Your task to perform on an android device: What's the weather? Image 0: 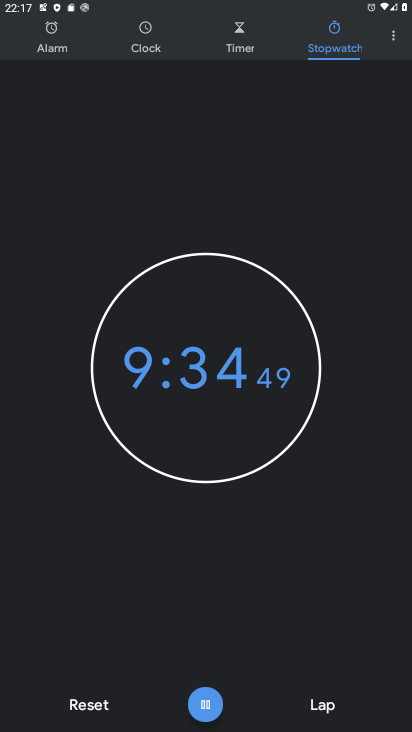
Step 0: click (81, 712)
Your task to perform on an android device: What's the weather? Image 1: 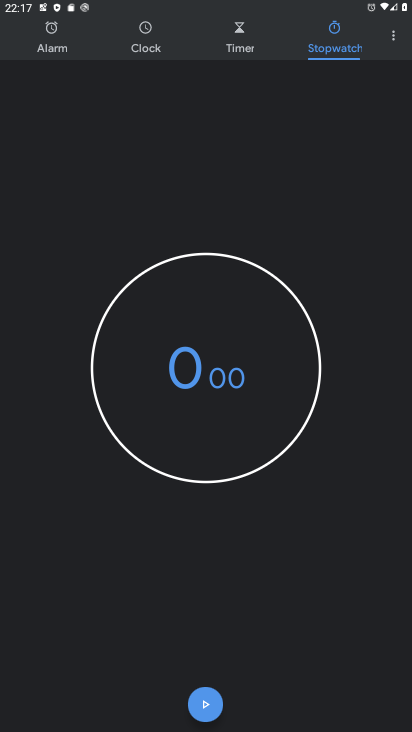
Step 1: press home button
Your task to perform on an android device: What's the weather? Image 2: 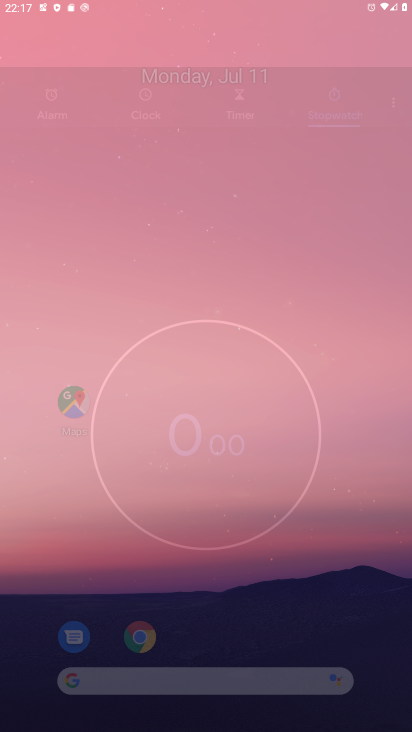
Step 2: drag from (216, 669) to (249, 115)
Your task to perform on an android device: What's the weather? Image 3: 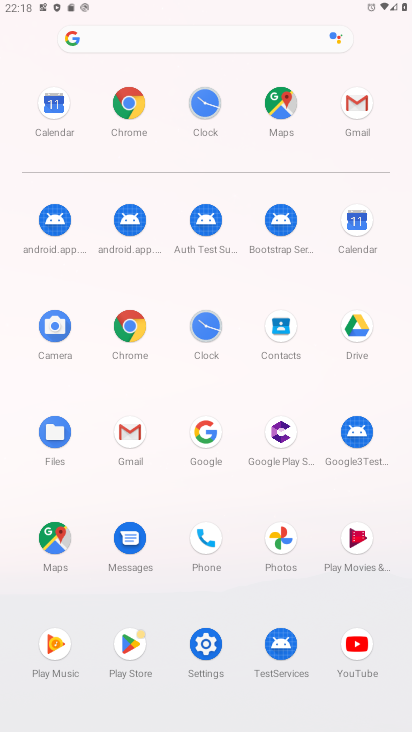
Step 3: click (151, 34)
Your task to perform on an android device: What's the weather? Image 4: 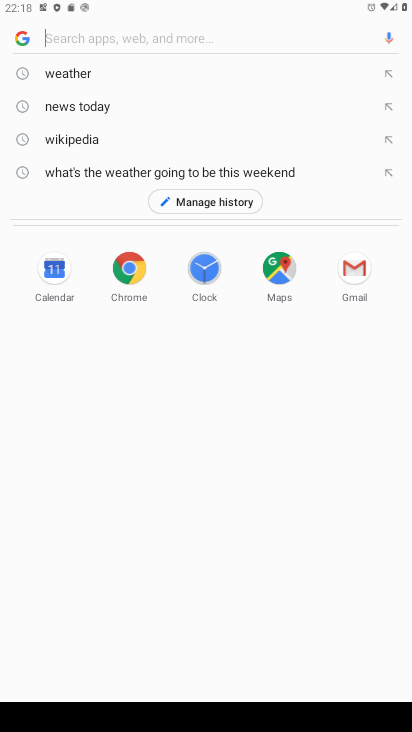
Step 4: click (72, 72)
Your task to perform on an android device: What's the weather? Image 5: 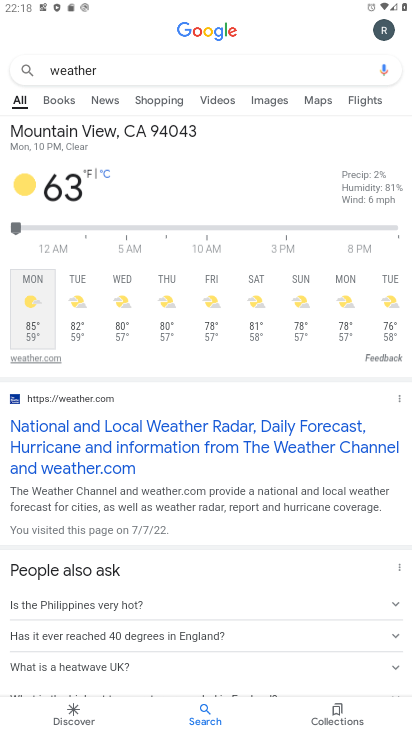
Step 5: task complete